Your task to perform on an android device: turn off notifications in google photos Image 0: 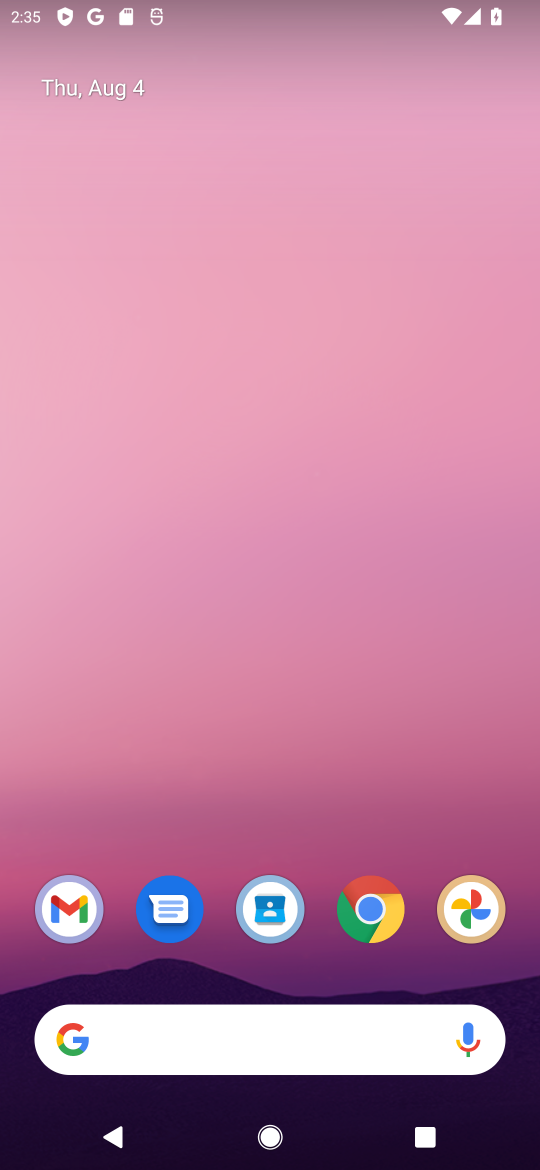
Step 0: click (460, 912)
Your task to perform on an android device: turn off notifications in google photos Image 1: 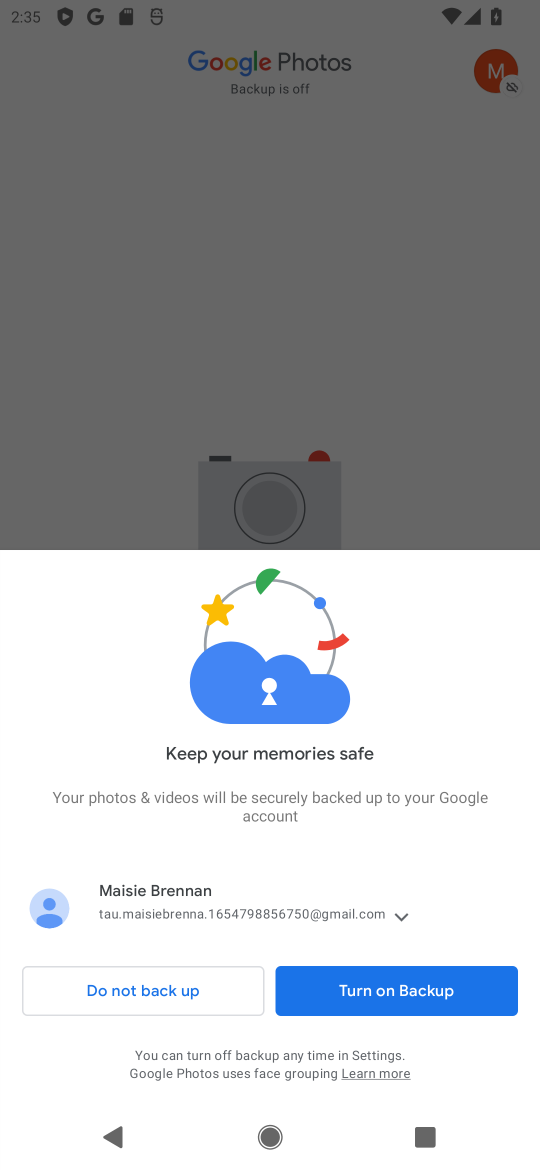
Step 1: click (415, 989)
Your task to perform on an android device: turn off notifications in google photos Image 2: 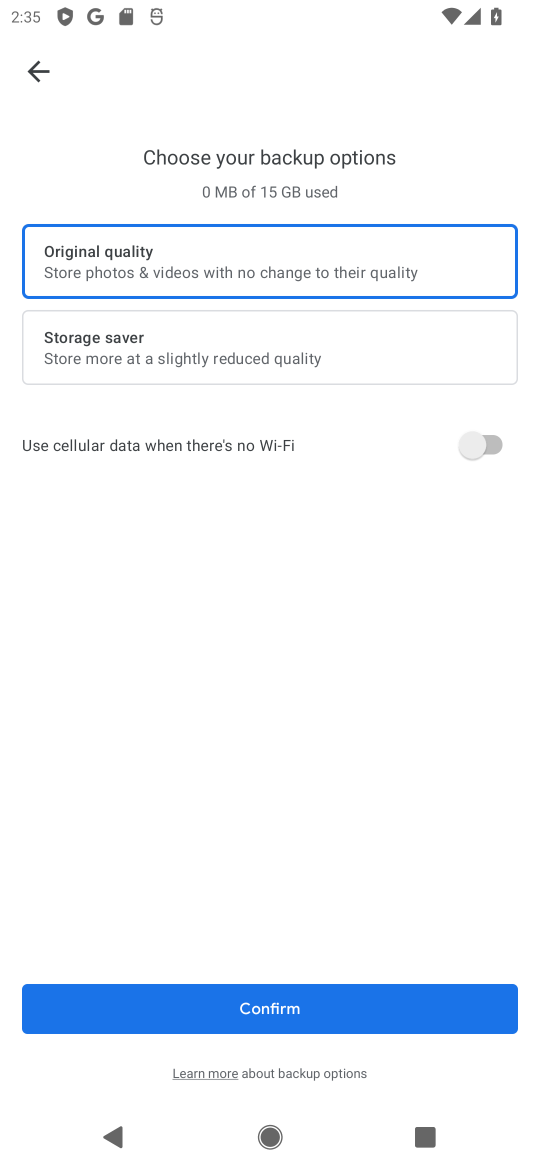
Step 2: click (294, 1017)
Your task to perform on an android device: turn off notifications in google photos Image 3: 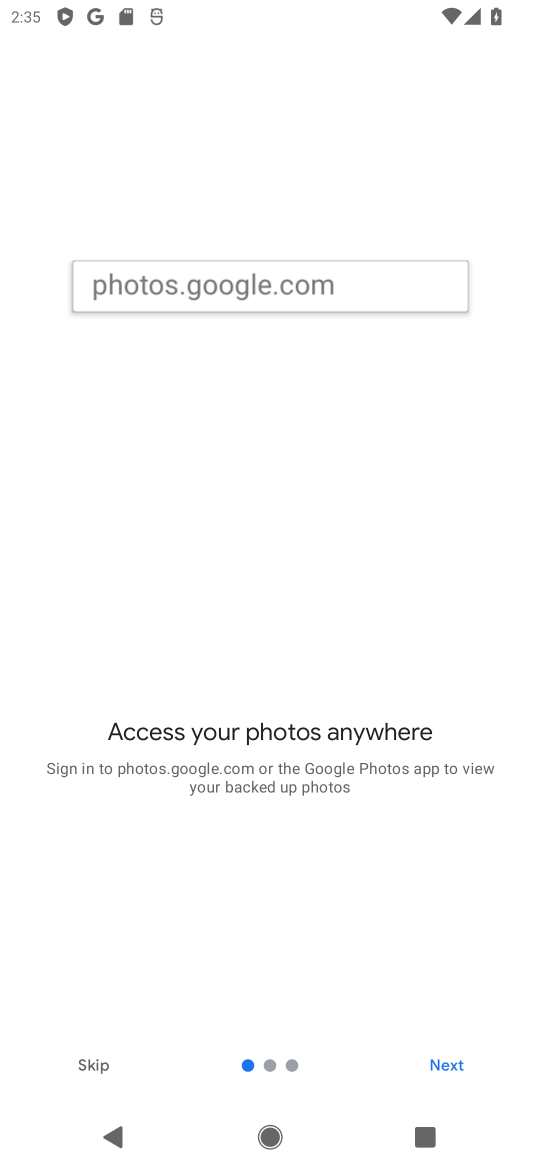
Step 3: click (449, 1058)
Your task to perform on an android device: turn off notifications in google photos Image 4: 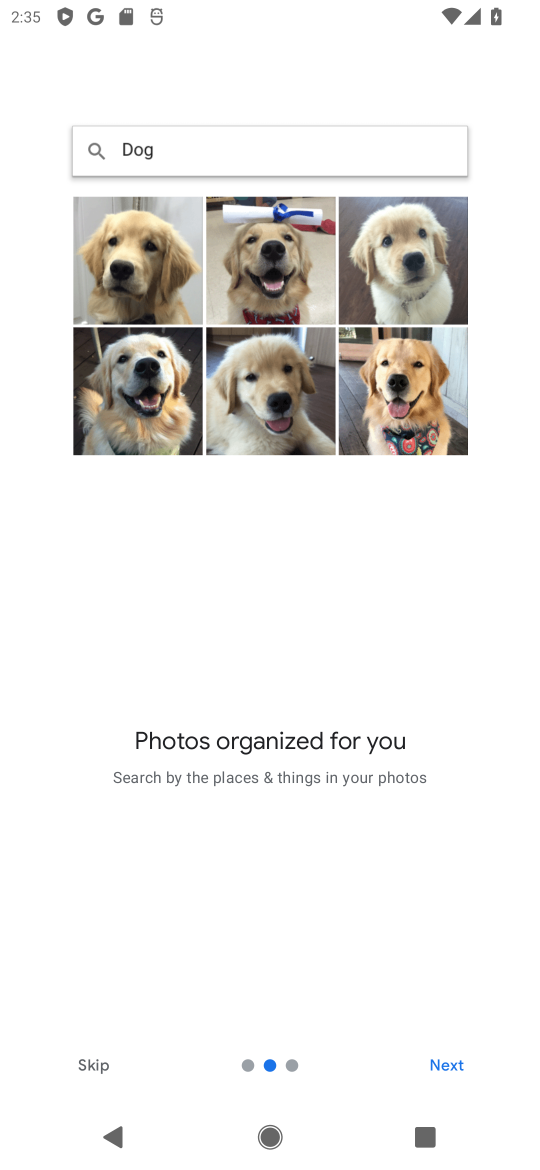
Step 4: click (451, 1070)
Your task to perform on an android device: turn off notifications in google photos Image 5: 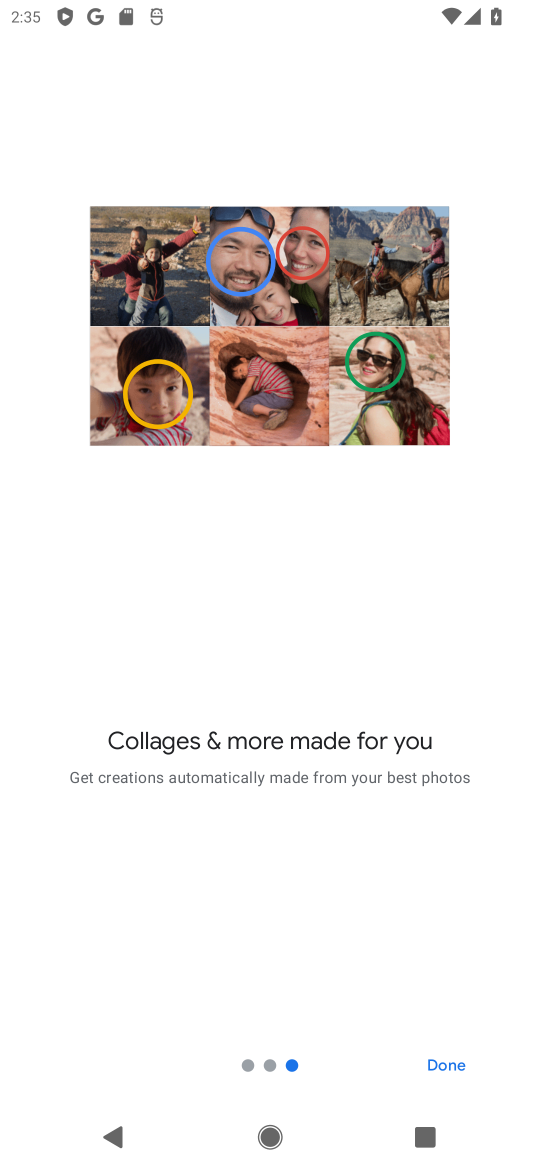
Step 5: click (451, 1070)
Your task to perform on an android device: turn off notifications in google photos Image 6: 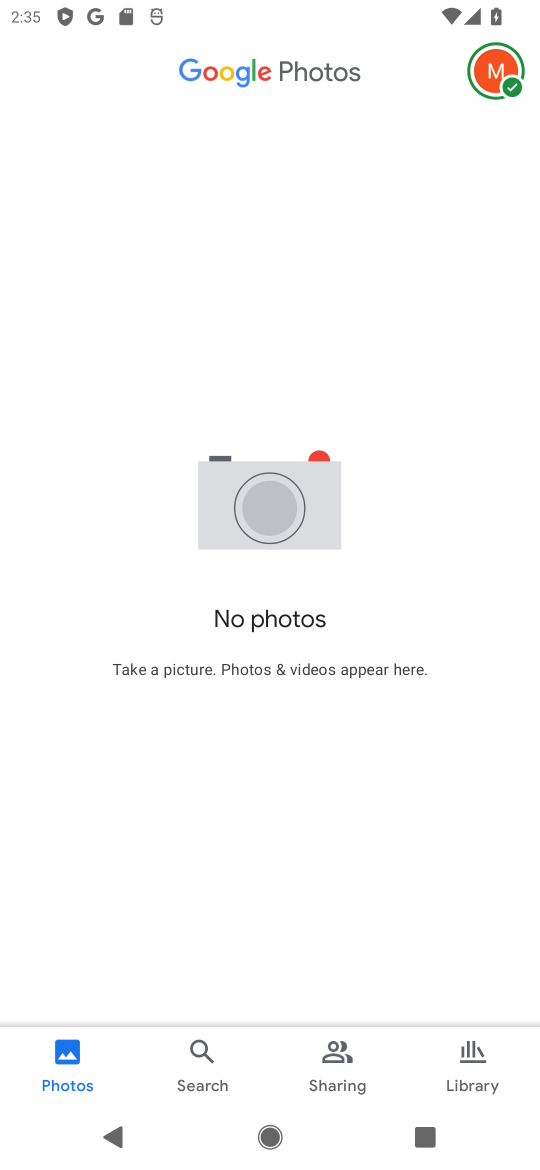
Step 6: click (485, 66)
Your task to perform on an android device: turn off notifications in google photos Image 7: 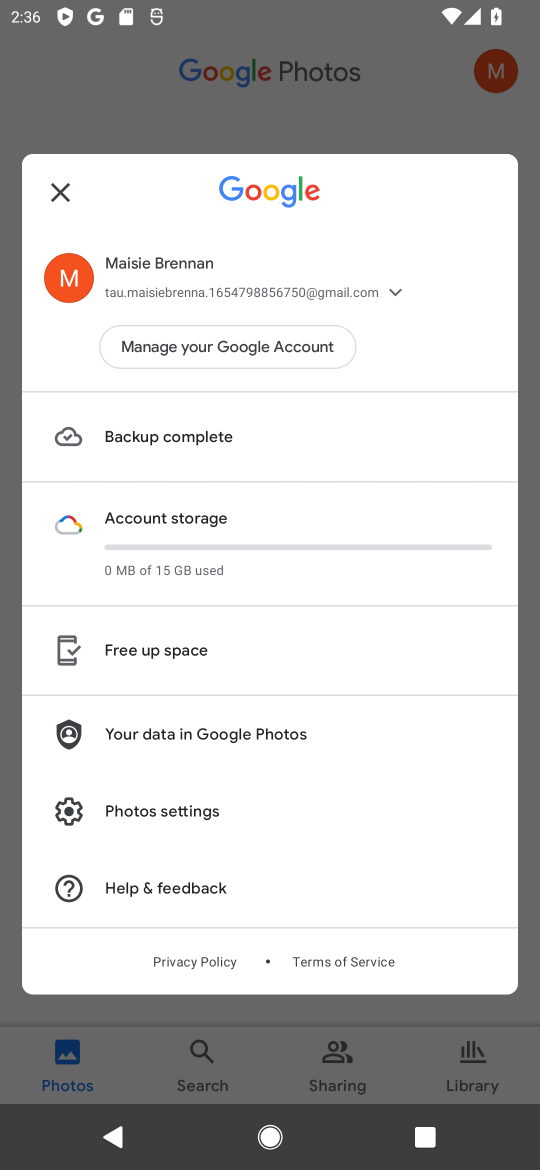
Step 7: click (190, 808)
Your task to perform on an android device: turn off notifications in google photos Image 8: 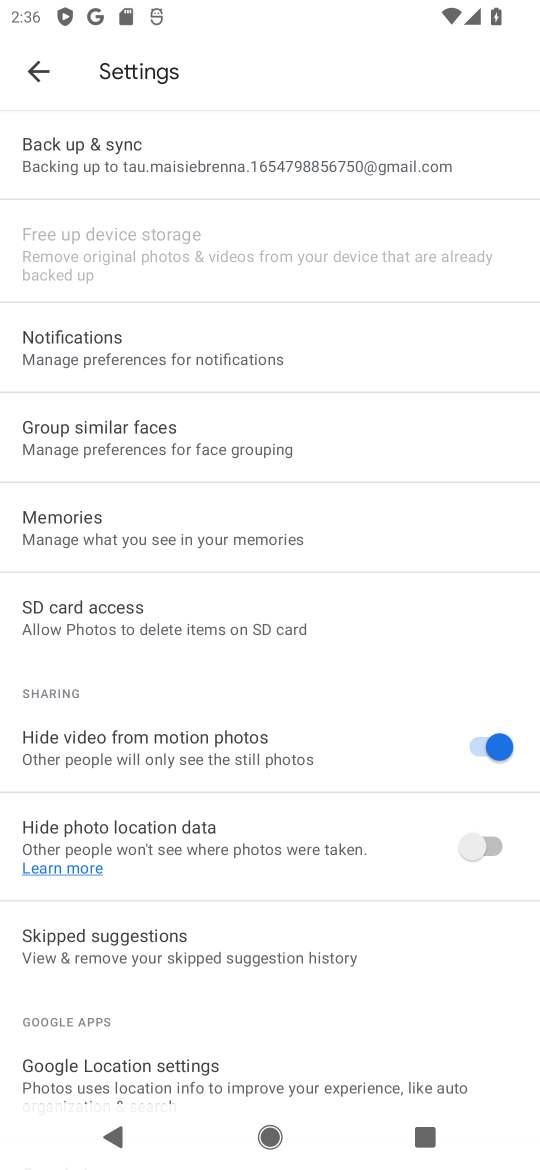
Step 8: click (225, 357)
Your task to perform on an android device: turn off notifications in google photos Image 9: 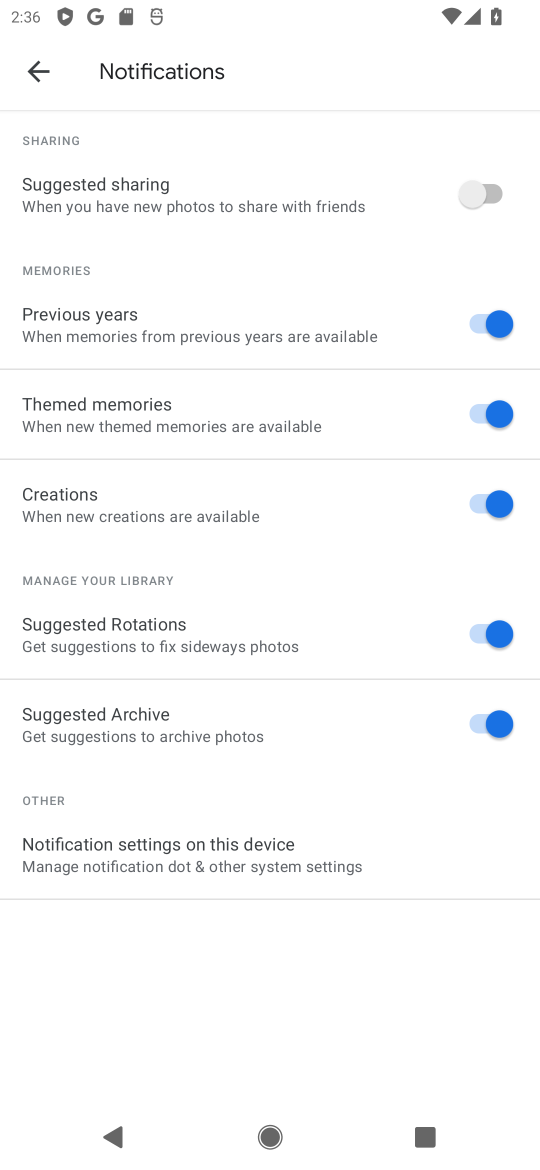
Step 9: click (196, 844)
Your task to perform on an android device: turn off notifications in google photos Image 10: 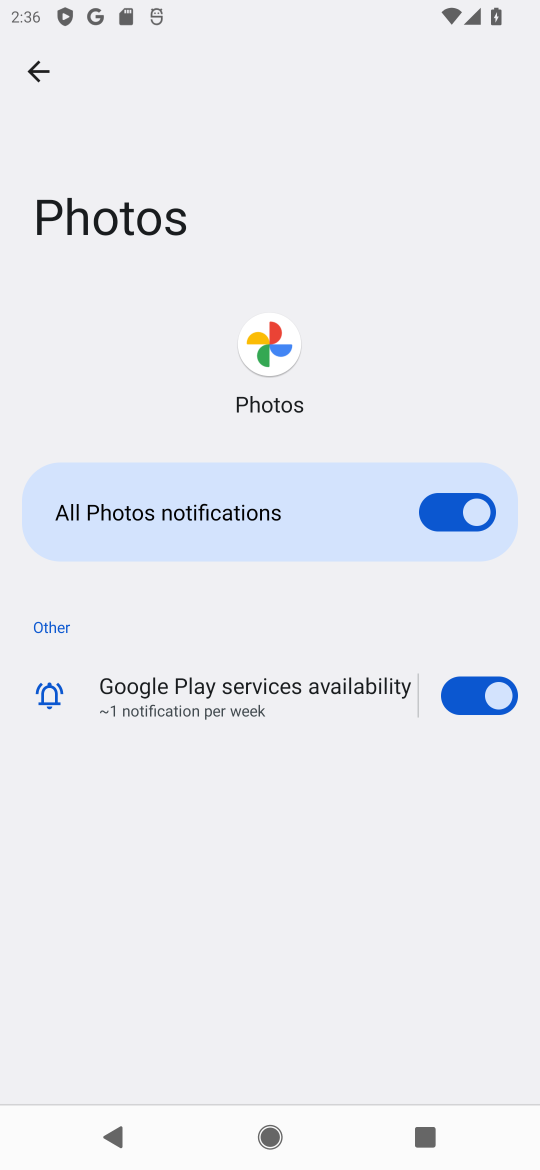
Step 10: click (436, 514)
Your task to perform on an android device: turn off notifications in google photos Image 11: 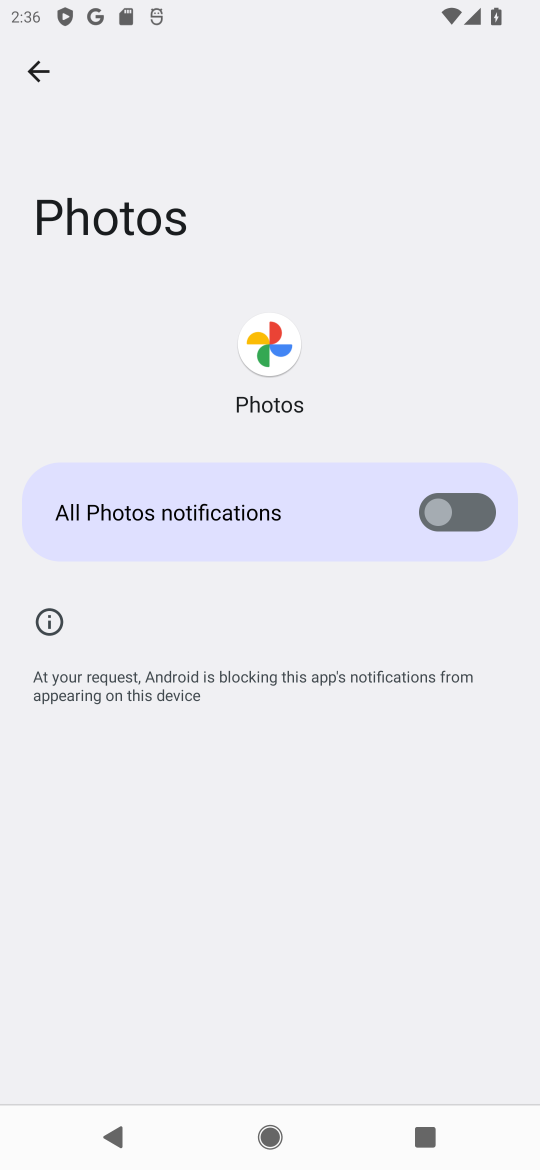
Step 11: task complete